Your task to perform on an android device: Open Google Maps and go to "Timeline" Image 0: 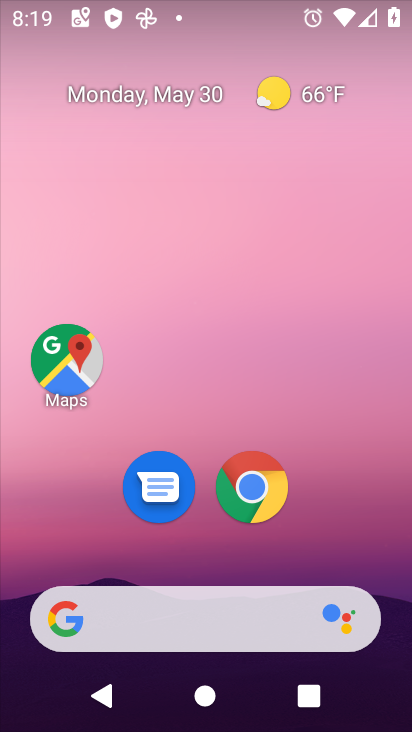
Step 0: press home button
Your task to perform on an android device: Open Google Maps and go to "Timeline" Image 1: 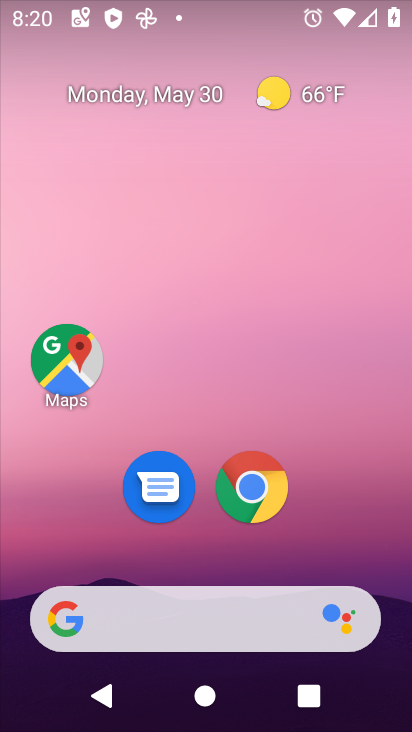
Step 1: drag from (353, 552) to (369, 146)
Your task to perform on an android device: Open Google Maps and go to "Timeline" Image 2: 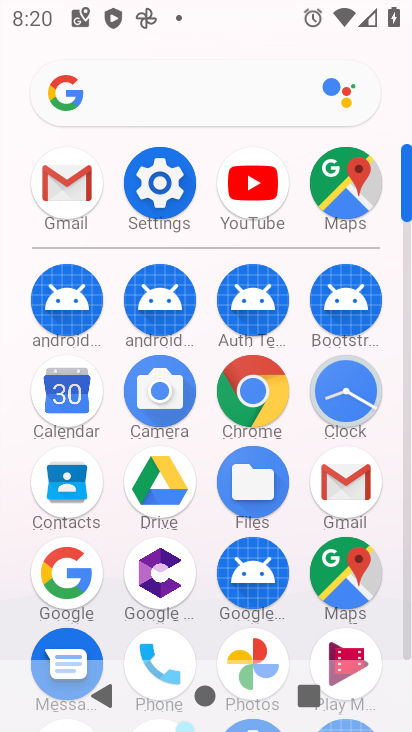
Step 2: click (334, 197)
Your task to perform on an android device: Open Google Maps and go to "Timeline" Image 3: 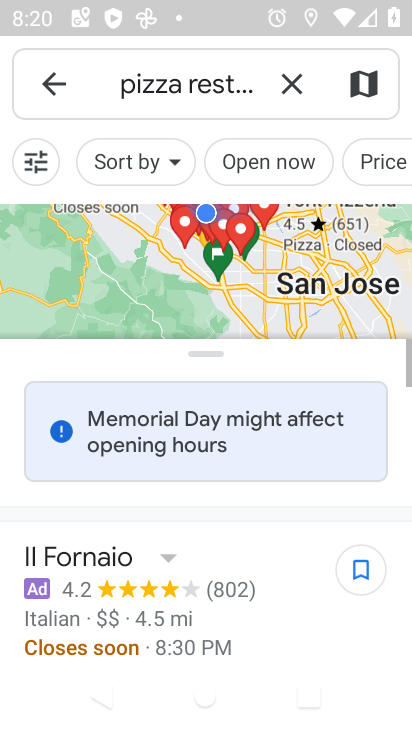
Step 3: click (298, 87)
Your task to perform on an android device: Open Google Maps and go to "Timeline" Image 4: 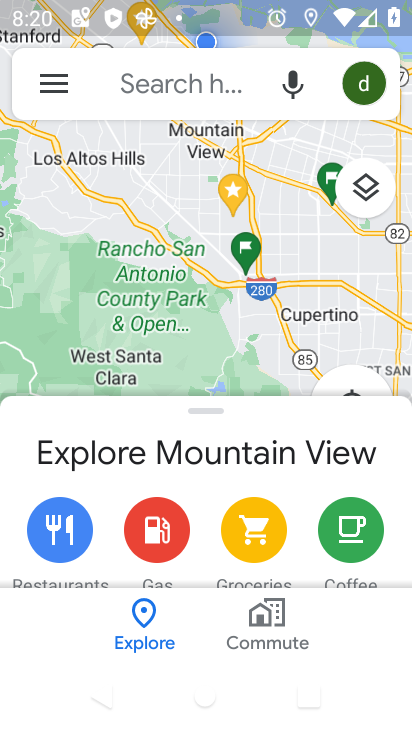
Step 4: click (42, 74)
Your task to perform on an android device: Open Google Maps and go to "Timeline" Image 5: 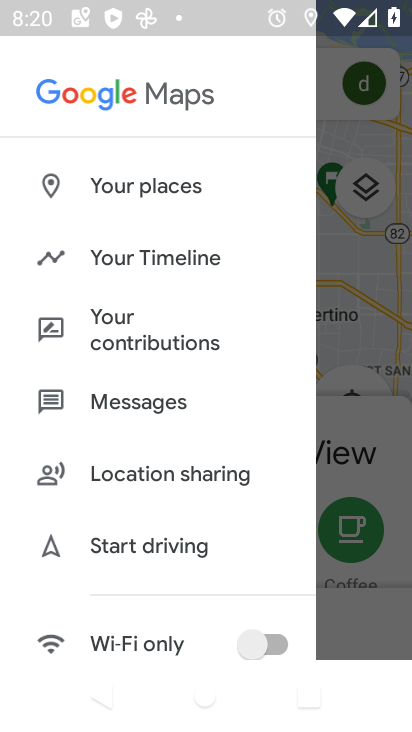
Step 5: click (166, 258)
Your task to perform on an android device: Open Google Maps and go to "Timeline" Image 6: 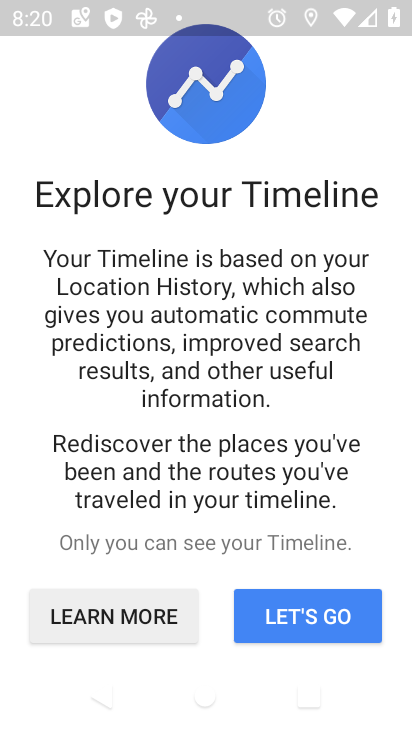
Step 6: click (306, 549)
Your task to perform on an android device: Open Google Maps and go to "Timeline" Image 7: 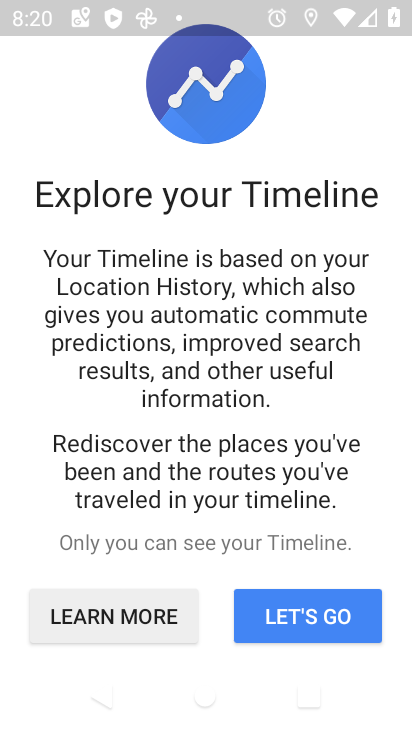
Step 7: click (305, 619)
Your task to perform on an android device: Open Google Maps and go to "Timeline" Image 8: 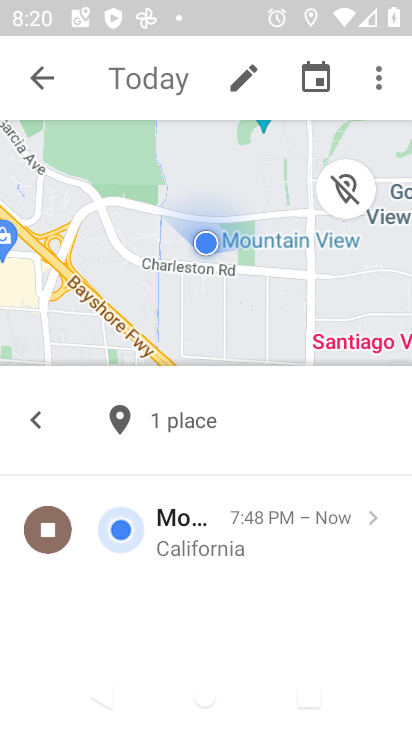
Step 8: task complete